Your task to perform on an android device: read, delete, or share a saved page in the chrome app Image 0: 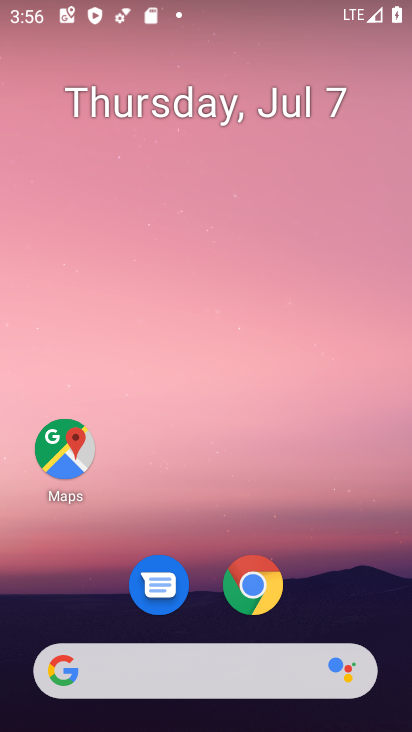
Step 0: drag from (220, 518) to (301, 6)
Your task to perform on an android device: read, delete, or share a saved page in the chrome app Image 1: 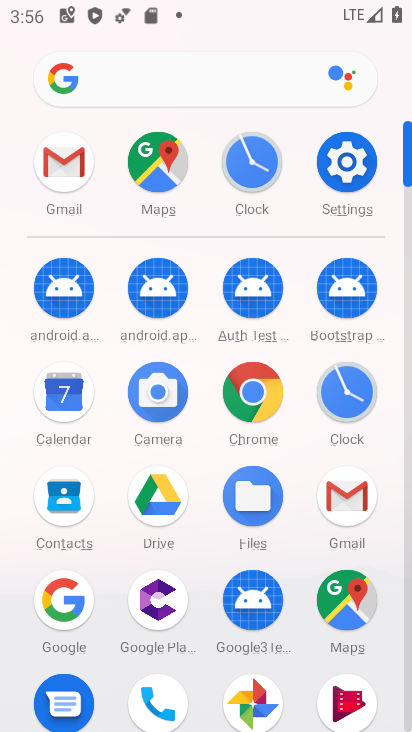
Step 1: click (345, 153)
Your task to perform on an android device: read, delete, or share a saved page in the chrome app Image 2: 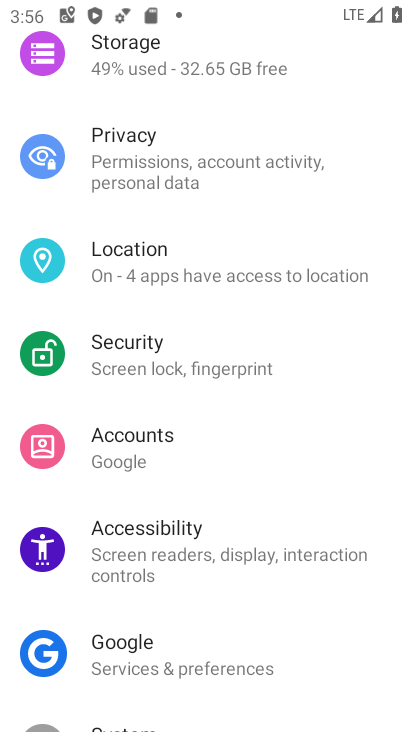
Step 2: press home button
Your task to perform on an android device: read, delete, or share a saved page in the chrome app Image 3: 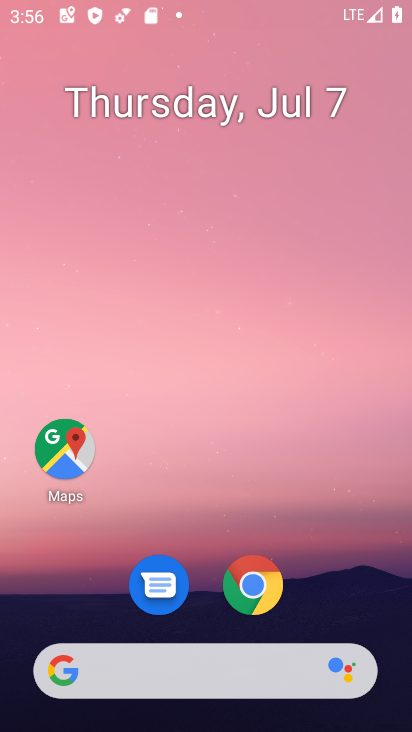
Step 3: press home button
Your task to perform on an android device: read, delete, or share a saved page in the chrome app Image 4: 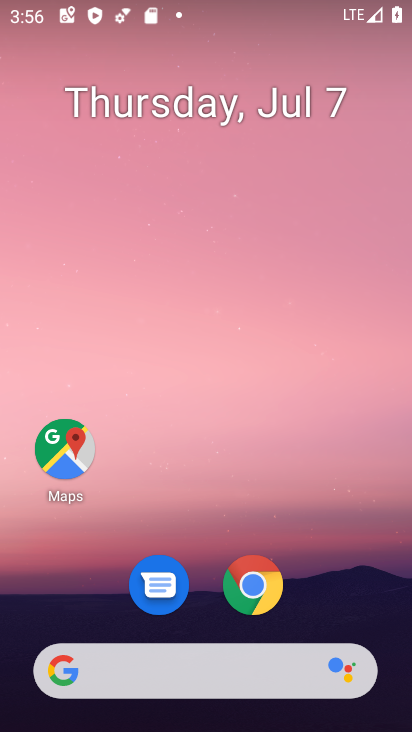
Step 4: drag from (279, 495) to (291, 51)
Your task to perform on an android device: read, delete, or share a saved page in the chrome app Image 5: 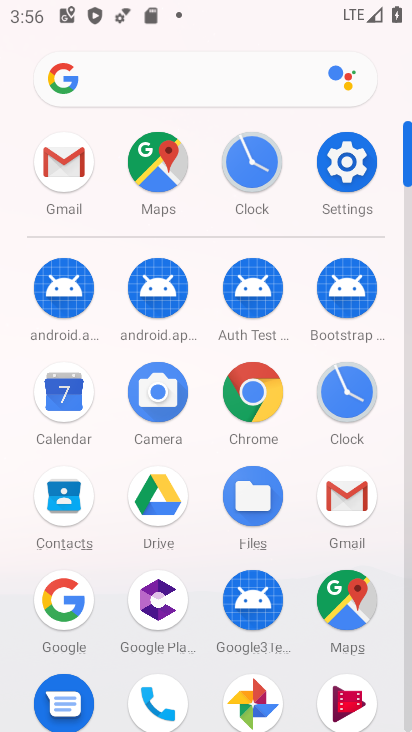
Step 5: click (260, 403)
Your task to perform on an android device: read, delete, or share a saved page in the chrome app Image 6: 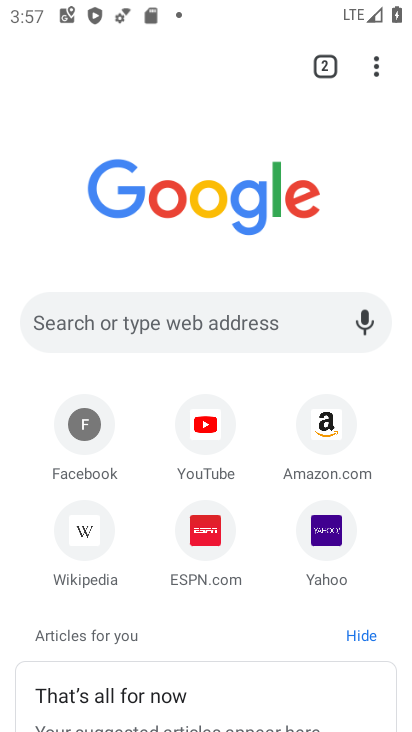
Step 6: click (377, 61)
Your task to perform on an android device: read, delete, or share a saved page in the chrome app Image 7: 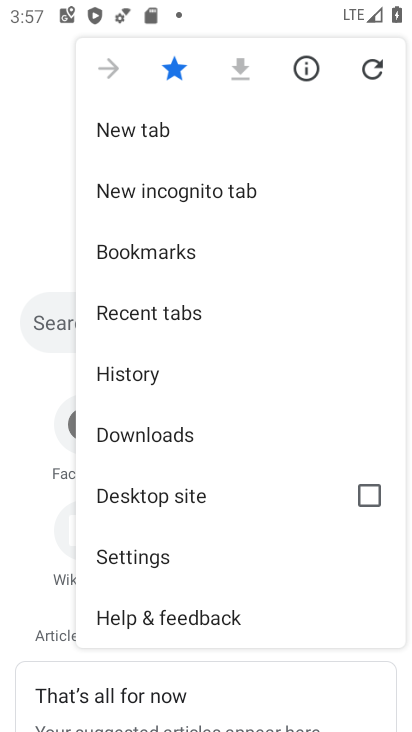
Step 7: click (166, 429)
Your task to perform on an android device: read, delete, or share a saved page in the chrome app Image 8: 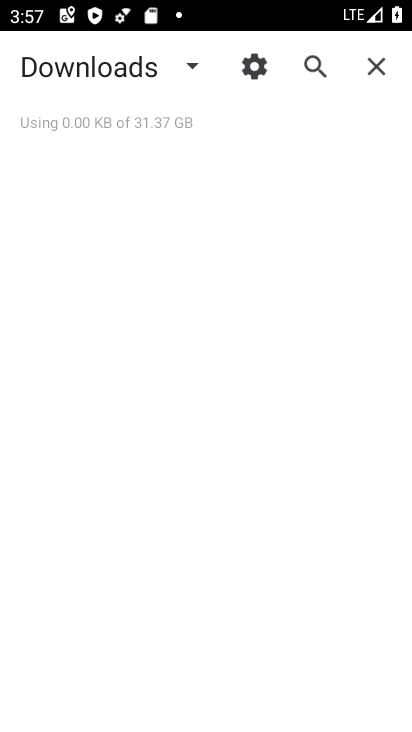
Step 8: task complete